Your task to perform on an android device: see sites visited before in the chrome app Image 0: 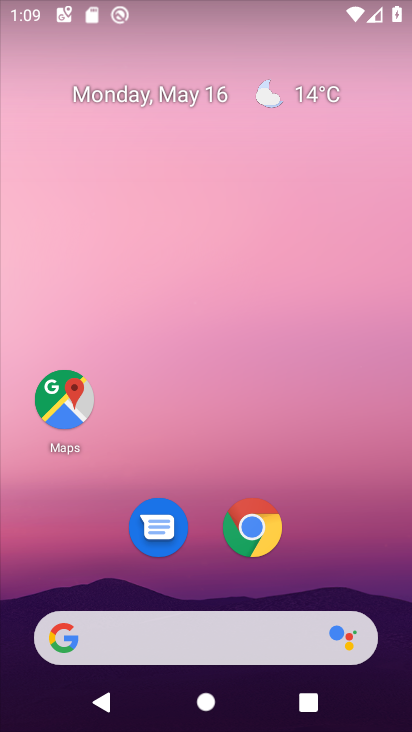
Step 0: click (258, 519)
Your task to perform on an android device: see sites visited before in the chrome app Image 1: 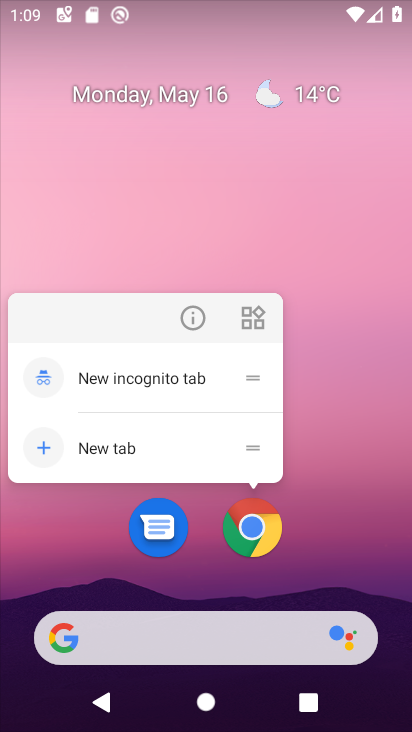
Step 1: click (261, 522)
Your task to perform on an android device: see sites visited before in the chrome app Image 2: 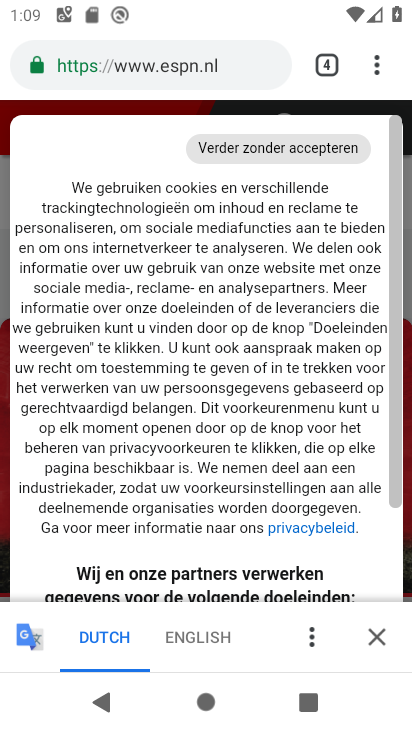
Step 2: click (376, 66)
Your task to perform on an android device: see sites visited before in the chrome app Image 3: 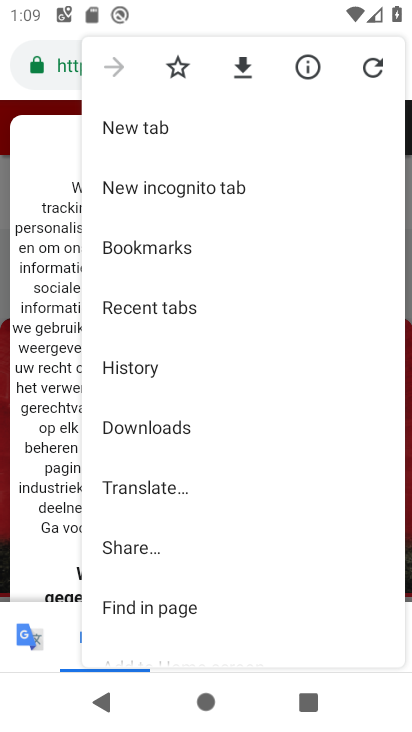
Step 3: click (141, 371)
Your task to perform on an android device: see sites visited before in the chrome app Image 4: 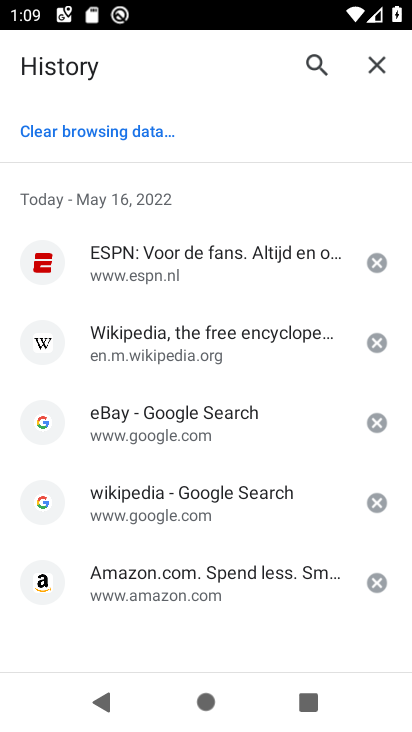
Step 4: task complete